Your task to perform on an android device: change notifications settings Image 0: 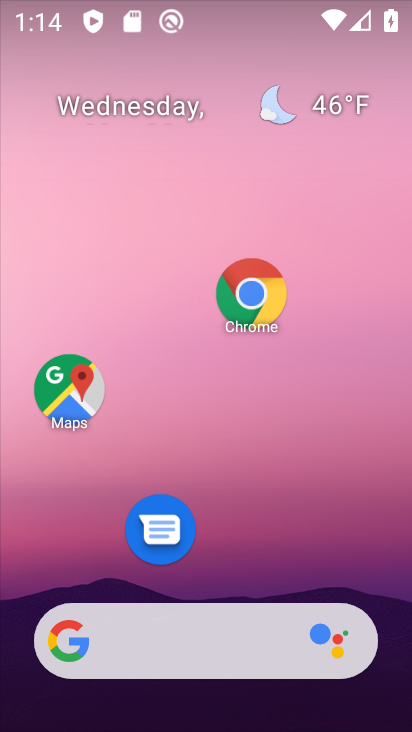
Step 0: drag from (229, 541) to (258, 99)
Your task to perform on an android device: change notifications settings Image 1: 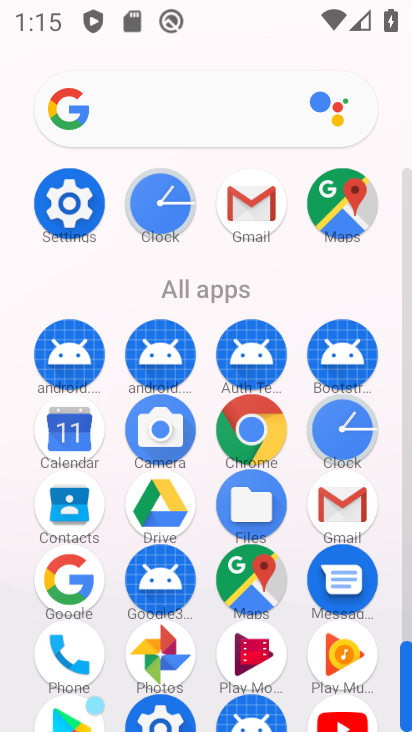
Step 1: click (76, 175)
Your task to perform on an android device: change notifications settings Image 2: 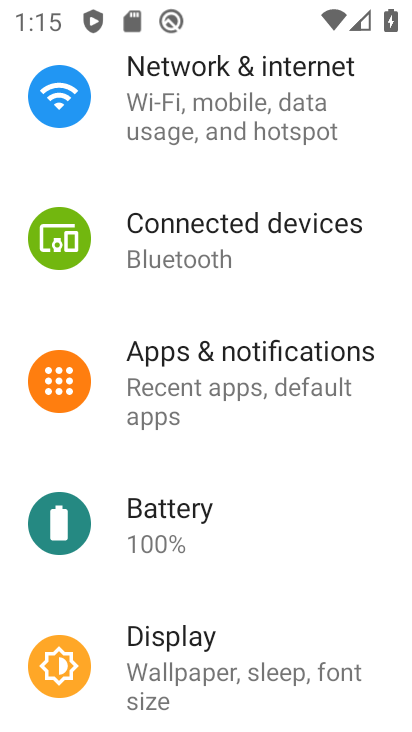
Step 2: click (210, 374)
Your task to perform on an android device: change notifications settings Image 3: 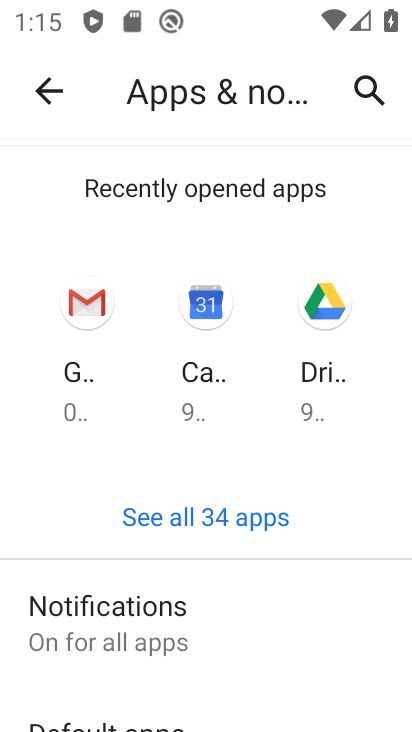
Step 3: click (165, 579)
Your task to perform on an android device: change notifications settings Image 4: 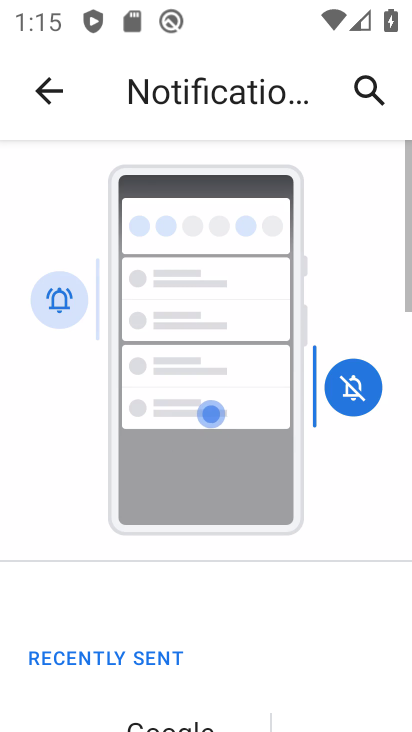
Step 4: drag from (211, 624) to (255, 68)
Your task to perform on an android device: change notifications settings Image 5: 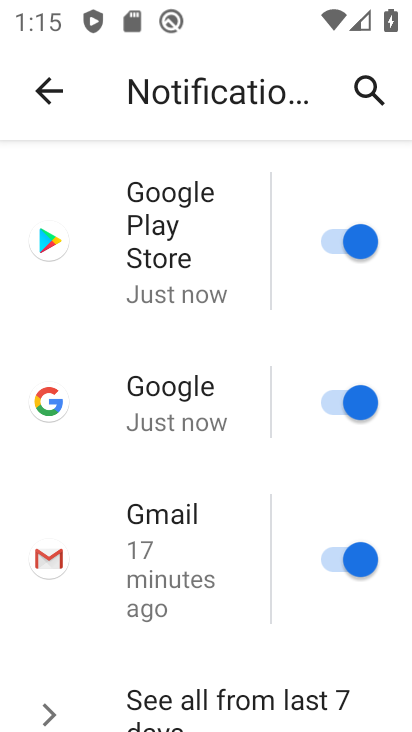
Step 5: drag from (142, 592) to (193, 190)
Your task to perform on an android device: change notifications settings Image 6: 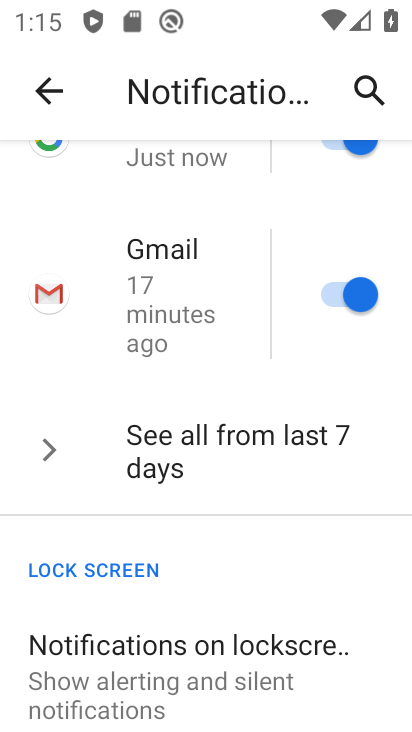
Step 6: drag from (251, 668) to (285, 171)
Your task to perform on an android device: change notifications settings Image 7: 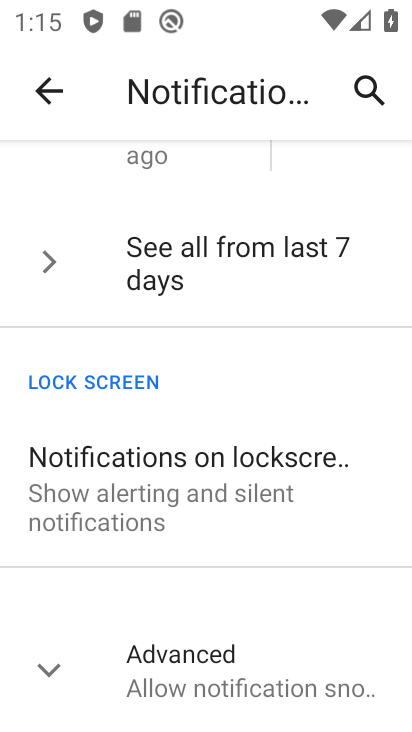
Step 7: click (184, 622)
Your task to perform on an android device: change notifications settings Image 8: 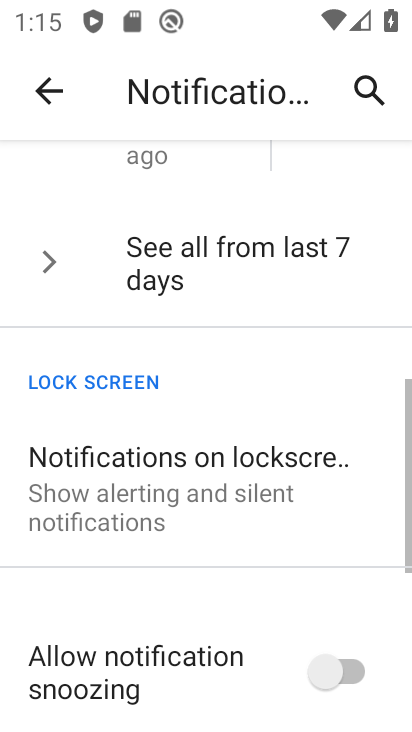
Step 8: drag from (184, 622) to (197, 230)
Your task to perform on an android device: change notifications settings Image 9: 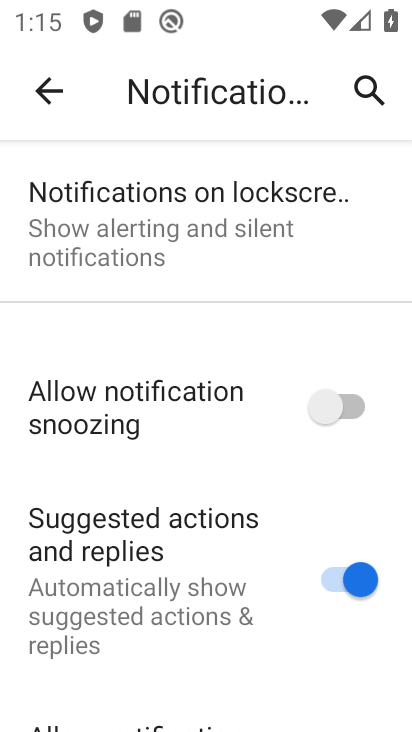
Step 9: click (333, 405)
Your task to perform on an android device: change notifications settings Image 10: 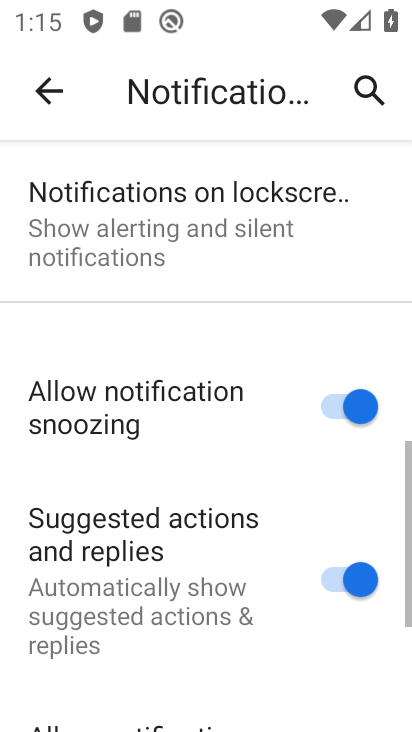
Step 10: click (348, 593)
Your task to perform on an android device: change notifications settings Image 11: 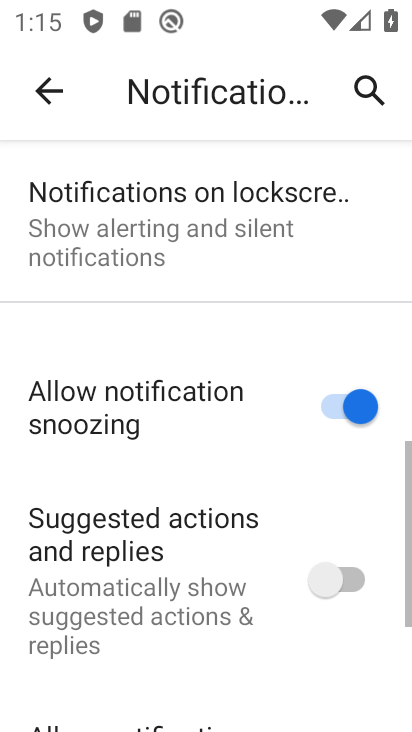
Step 11: drag from (211, 591) to (227, 225)
Your task to perform on an android device: change notifications settings Image 12: 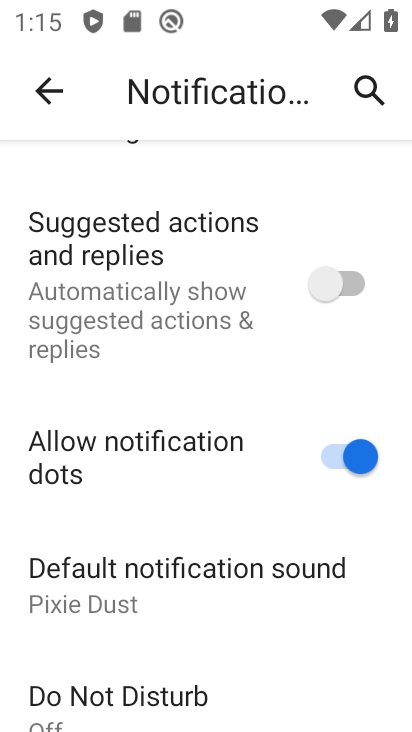
Step 12: click (337, 472)
Your task to perform on an android device: change notifications settings Image 13: 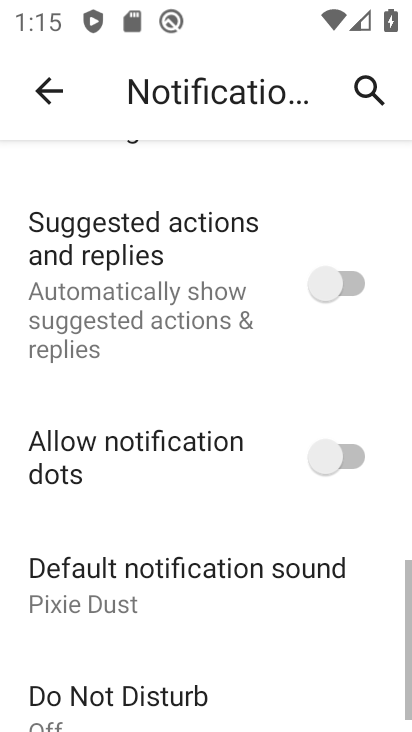
Step 13: task complete